Your task to perform on an android device: Open Reddit.com Image 0: 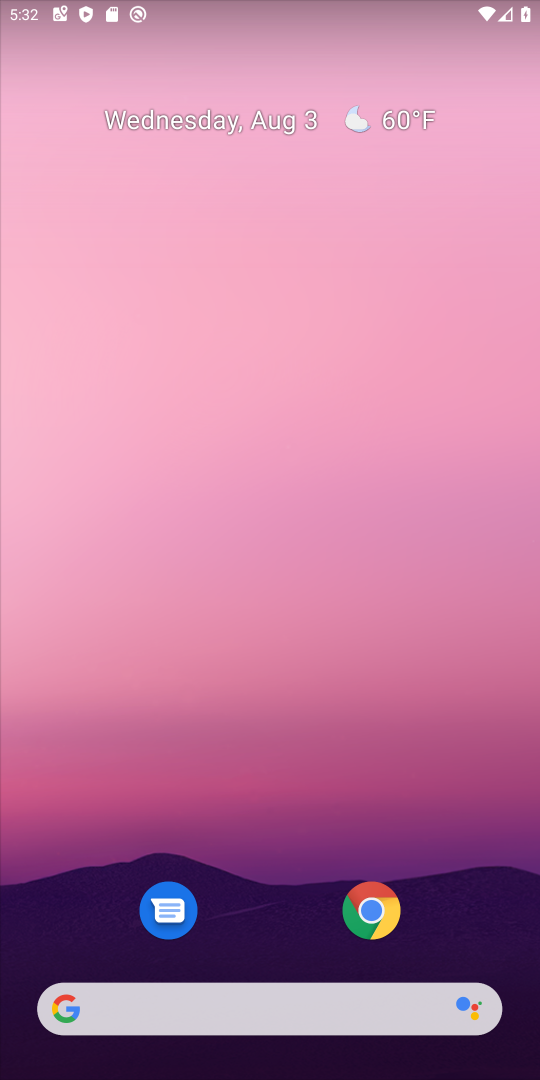
Step 0: click (380, 894)
Your task to perform on an android device: Open Reddit.com Image 1: 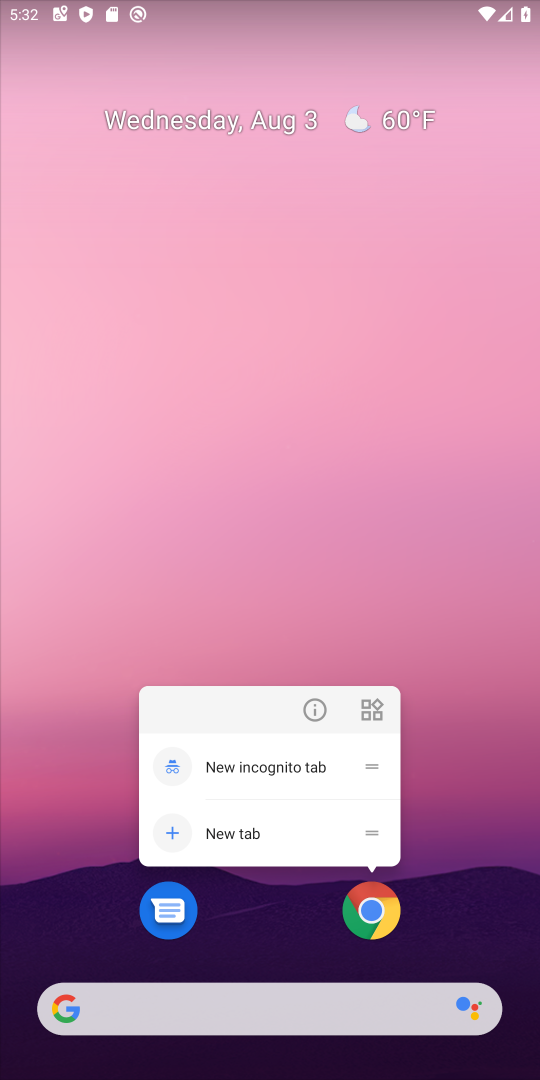
Step 1: click (373, 915)
Your task to perform on an android device: Open Reddit.com Image 2: 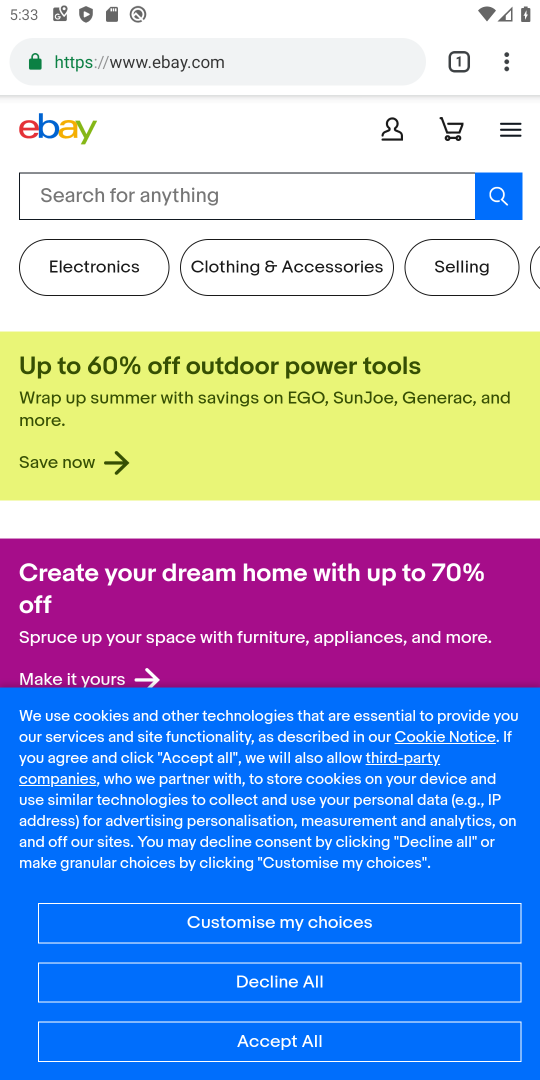
Step 2: click (146, 56)
Your task to perform on an android device: Open Reddit.com Image 3: 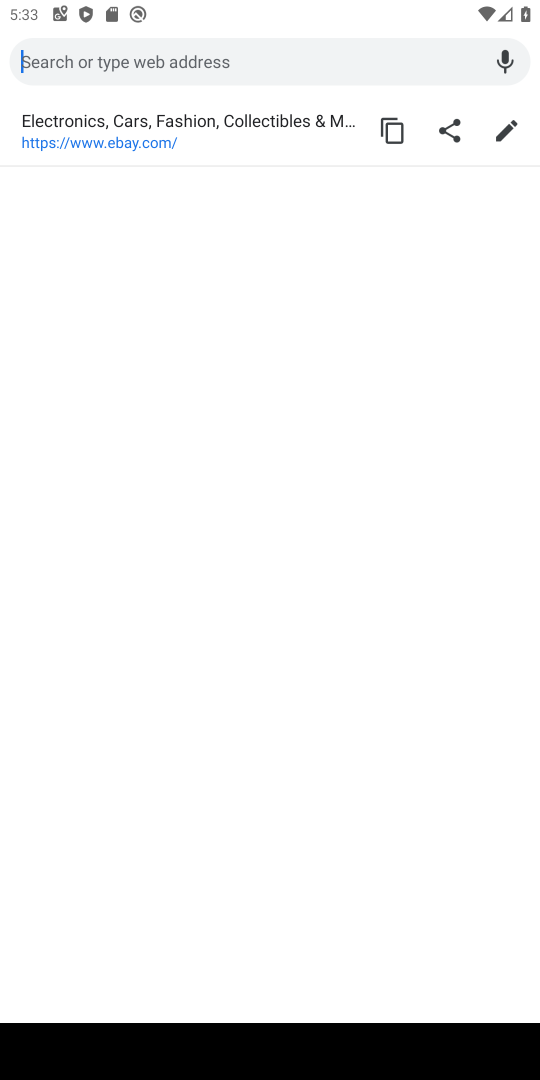
Step 3: click (113, 53)
Your task to perform on an android device: Open Reddit.com Image 4: 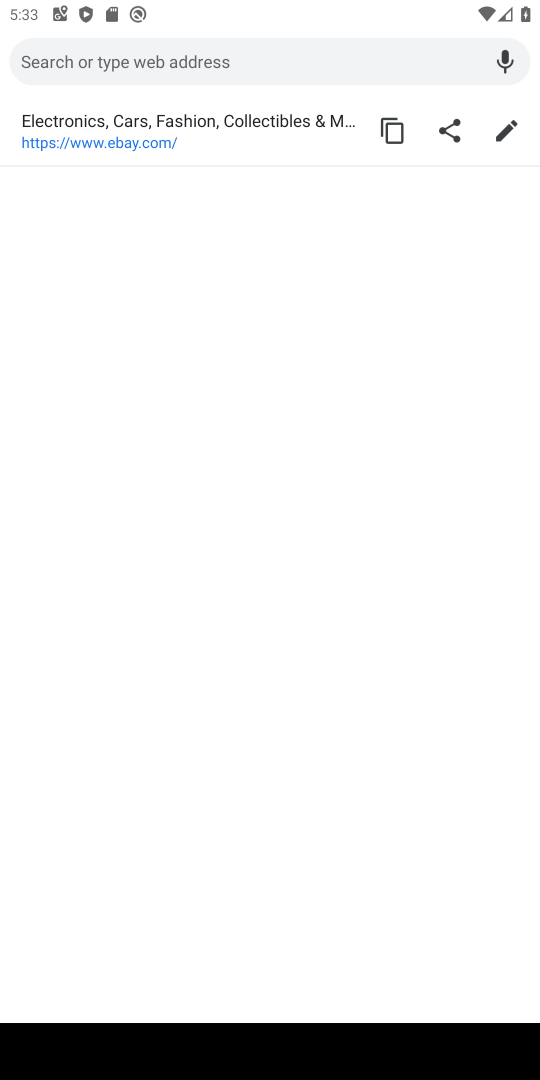
Step 4: type " Reddit.com"
Your task to perform on an android device: Open Reddit.com Image 5: 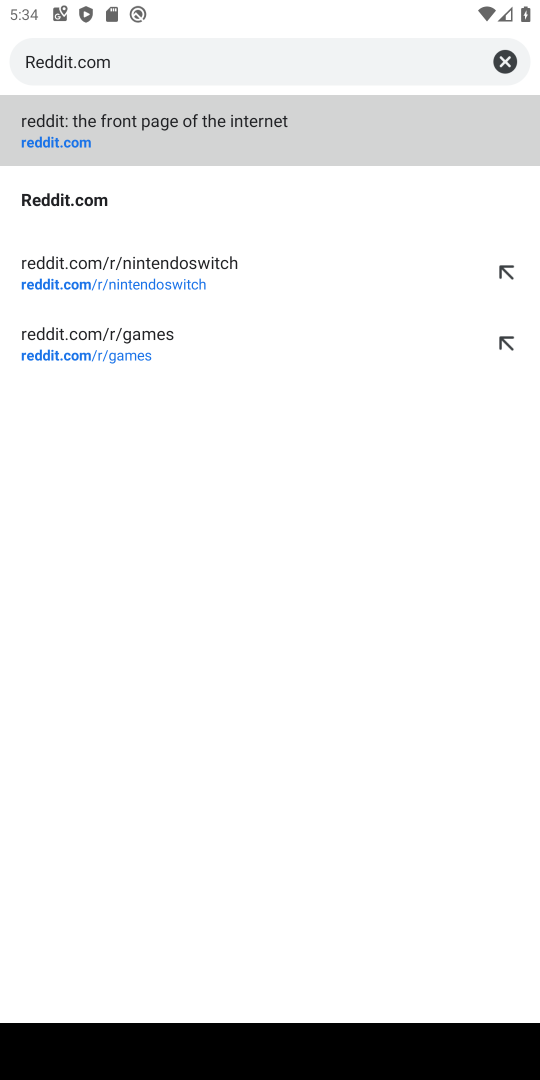
Step 5: click (62, 135)
Your task to perform on an android device: Open Reddit.com Image 6: 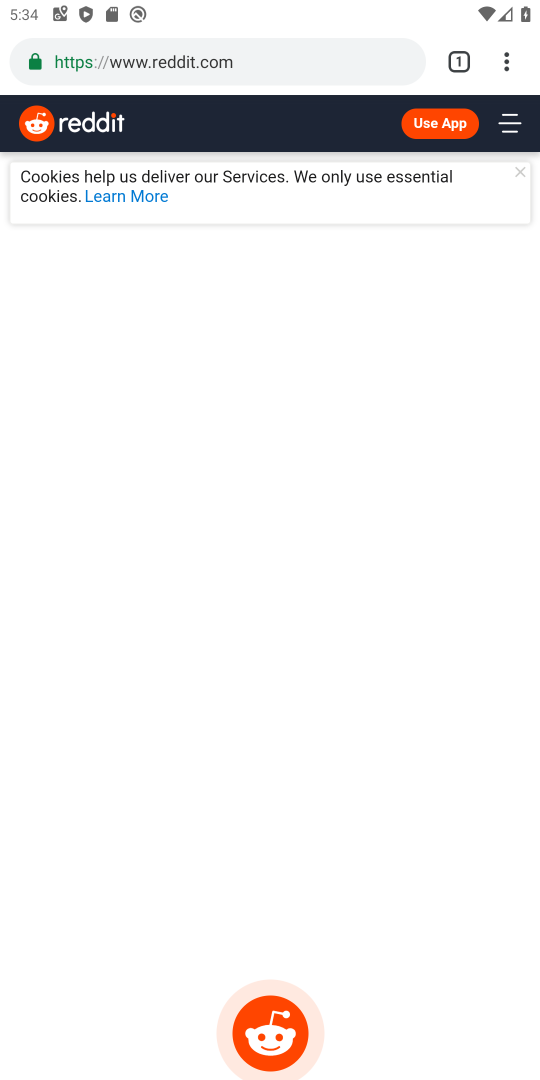
Step 6: task complete